Your task to perform on an android device: empty trash in the gmail app Image 0: 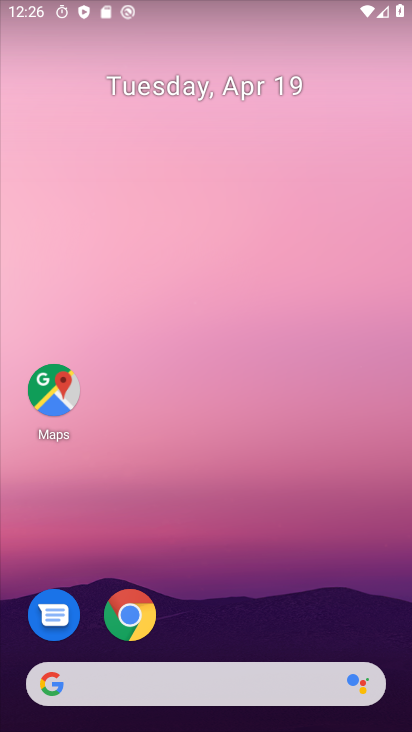
Step 0: drag from (383, 607) to (387, 83)
Your task to perform on an android device: empty trash in the gmail app Image 1: 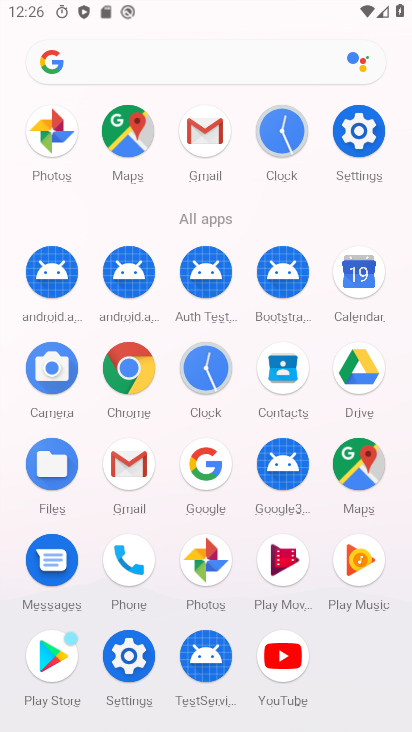
Step 1: click (133, 469)
Your task to perform on an android device: empty trash in the gmail app Image 2: 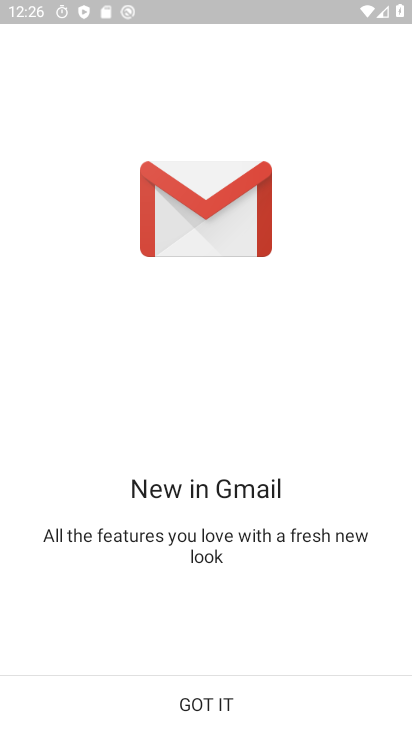
Step 2: click (199, 694)
Your task to perform on an android device: empty trash in the gmail app Image 3: 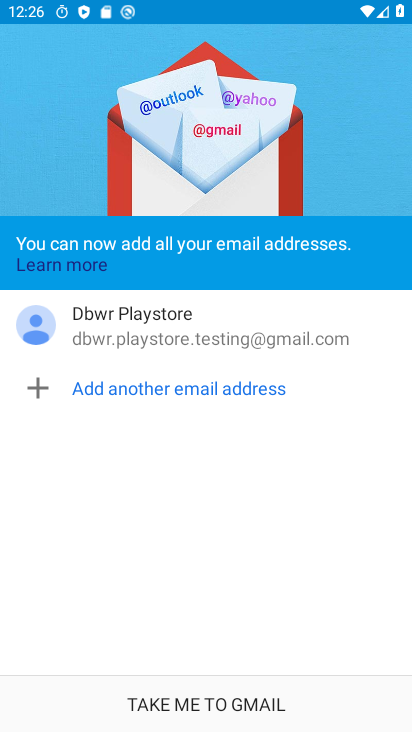
Step 3: click (199, 694)
Your task to perform on an android device: empty trash in the gmail app Image 4: 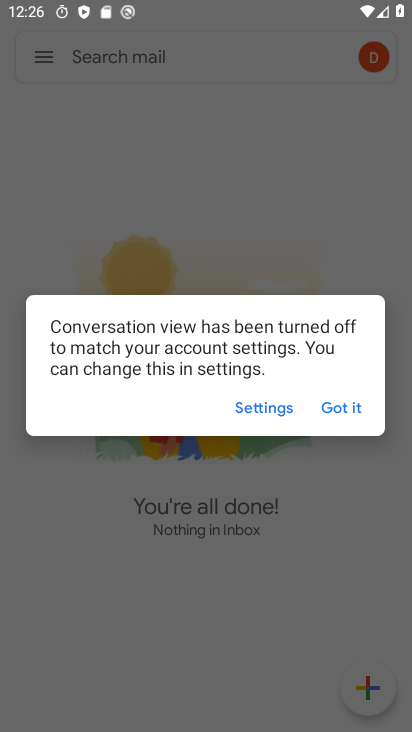
Step 4: click (341, 405)
Your task to perform on an android device: empty trash in the gmail app Image 5: 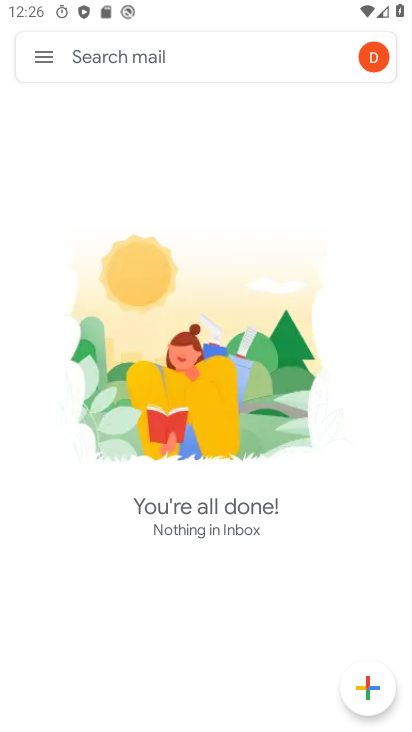
Step 5: click (42, 57)
Your task to perform on an android device: empty trash in the gmail app Image 6: 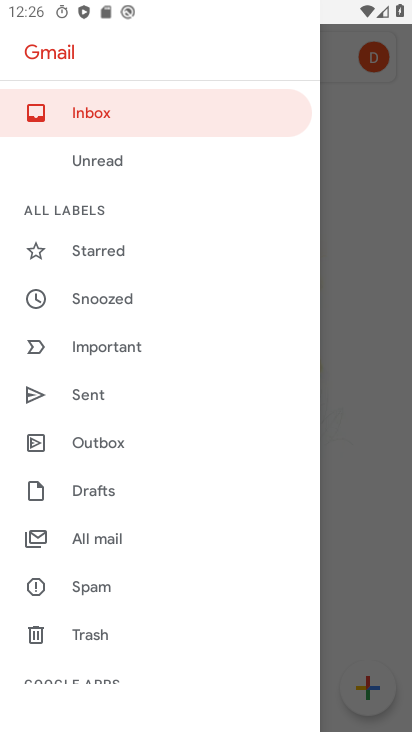
Step 6: drag from (259, 552) to (263, 359)
Your task to perform on an android device: empty trash in the gmail app Image 7: 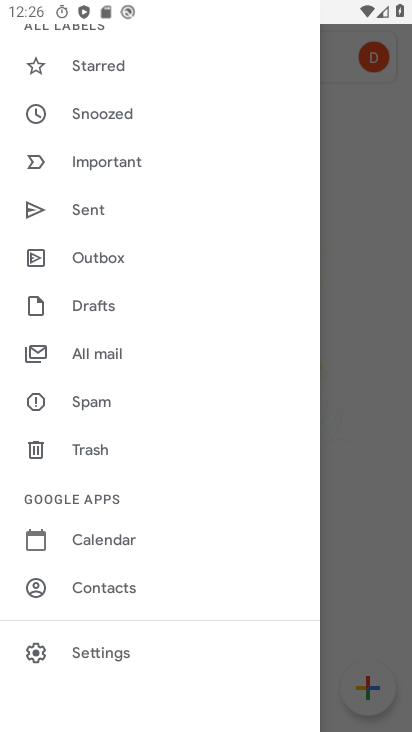
Step 7: drag from (271, 572) to (271, 386)
Your task to perform on an android device: empty trash in the gmail app Image 8: 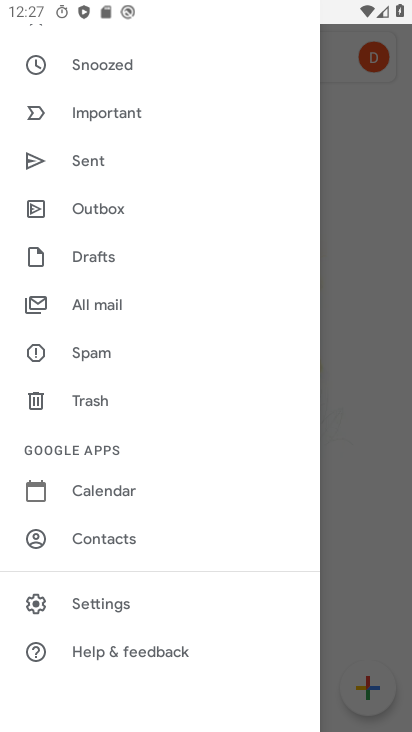
Step 8: drag from (251, 567) to (261, 299)
Your task to perform on an android device: empty trash in the gmail app Image 9: 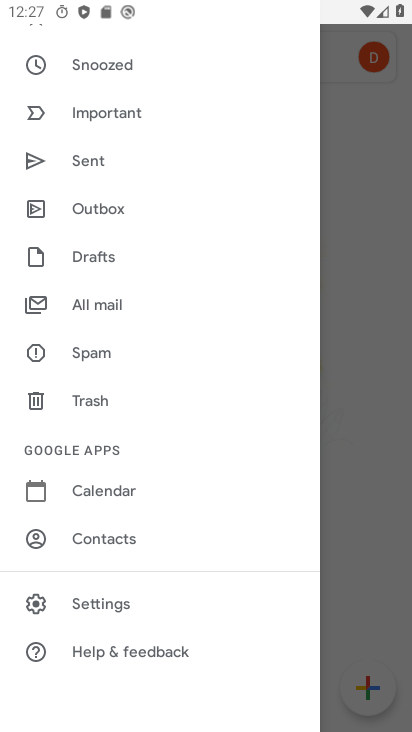
Step 9: click (94, 397)
Your task to perform on an android device: empty trash in the gmail app Image 10: 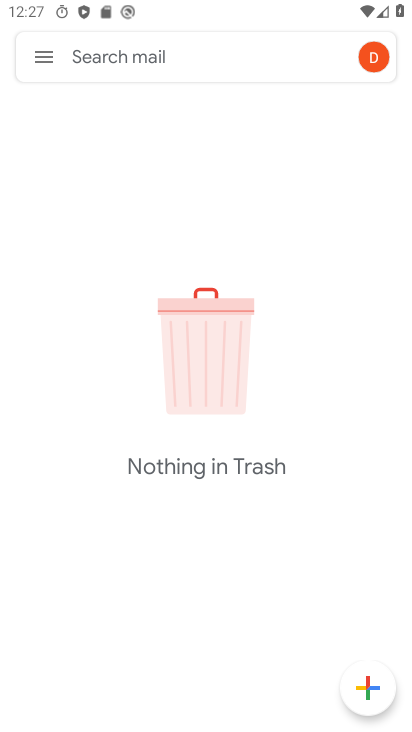
Step 10: task complete